Your task to perform on an android device: open app "Speedtest by Ookla" (install if not already installed) Image 0: 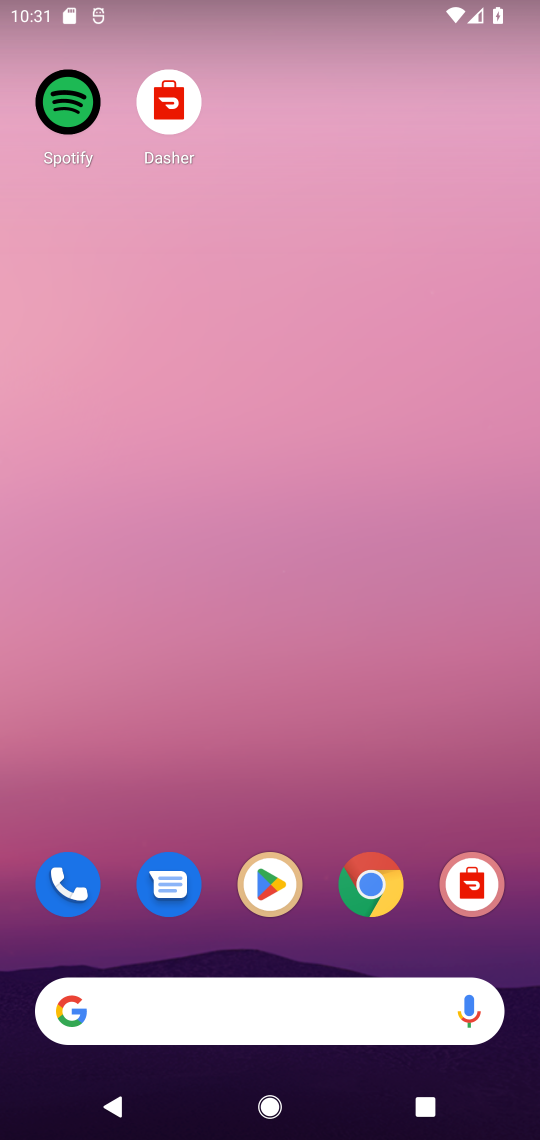
Step 0: click (272, 885)
Your task to perform on an android device: open app "Speedtest by Ookla" (install if not already installed) Image 1: 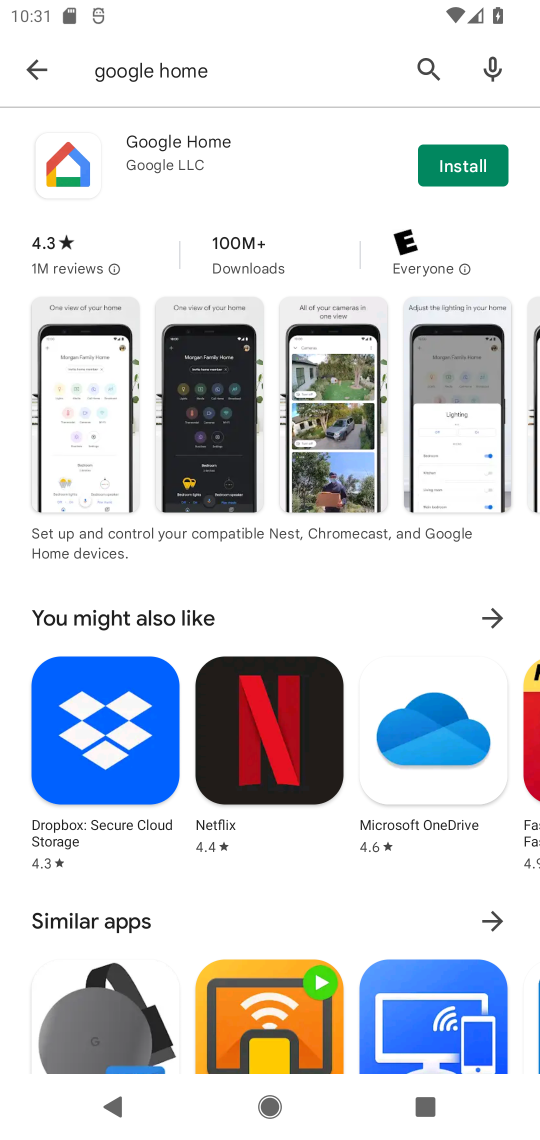
Step 1: click (426, 68)
Your task to perform on an android device: open app "Speedtest by Ookla" (install if not already installed) Image 2: 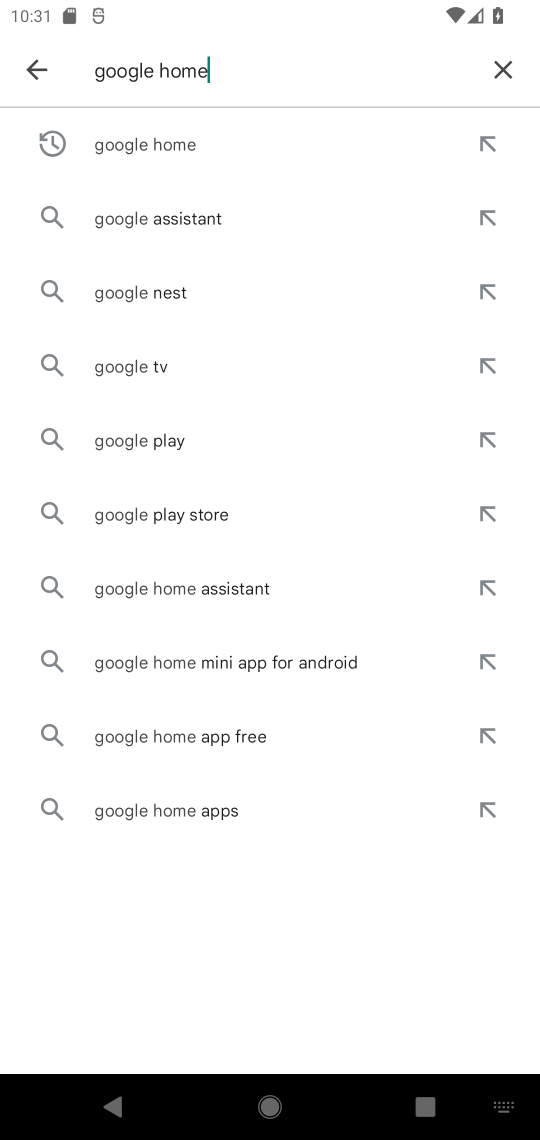
Step 2: click (499, 68)
Your task to perform on an android device: open app "Speedtest by Ookla" (install if not already installed) Image 3: 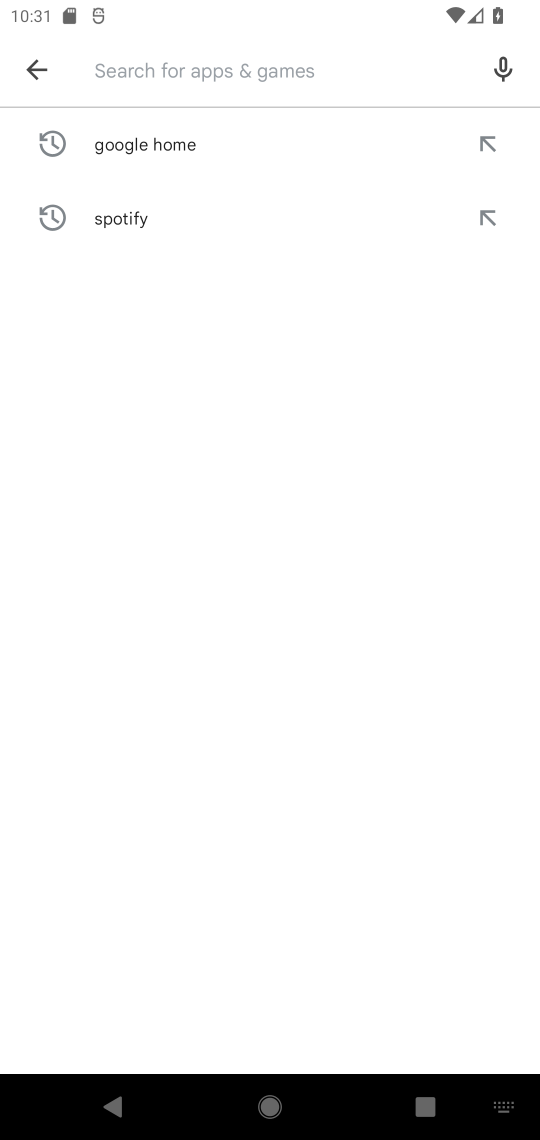
Step 3: type "Speedtest by Ookla"
Your task to perform on an android device: open app "Speedtest by Ookla" (install if not already installed) Image 4: 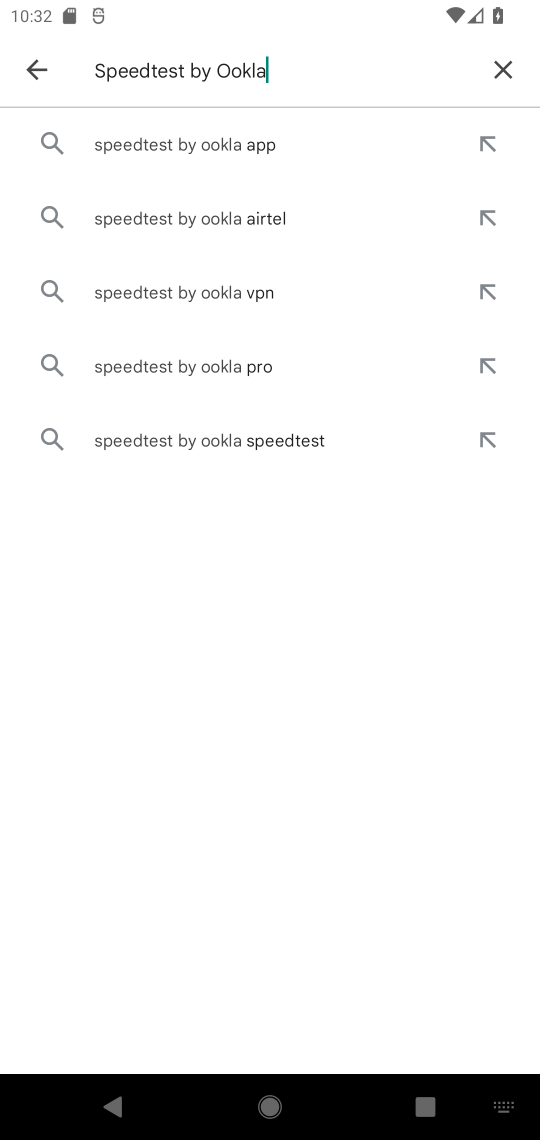
Step 4: click (208, 139)
Your task to perform on an android device: open app "Speedtest by Ookla" (install if not already installed) Image 5: 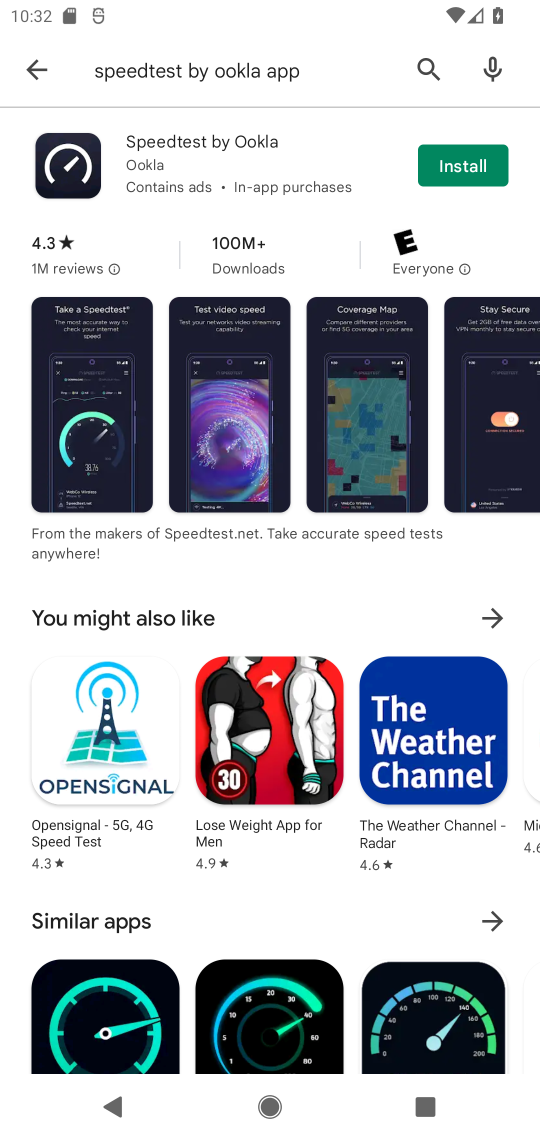
Step 5: click (460, 164)
Your task to perform on an android device: open app "Speedtest by Ookla" (install if not already installed) Image 6: 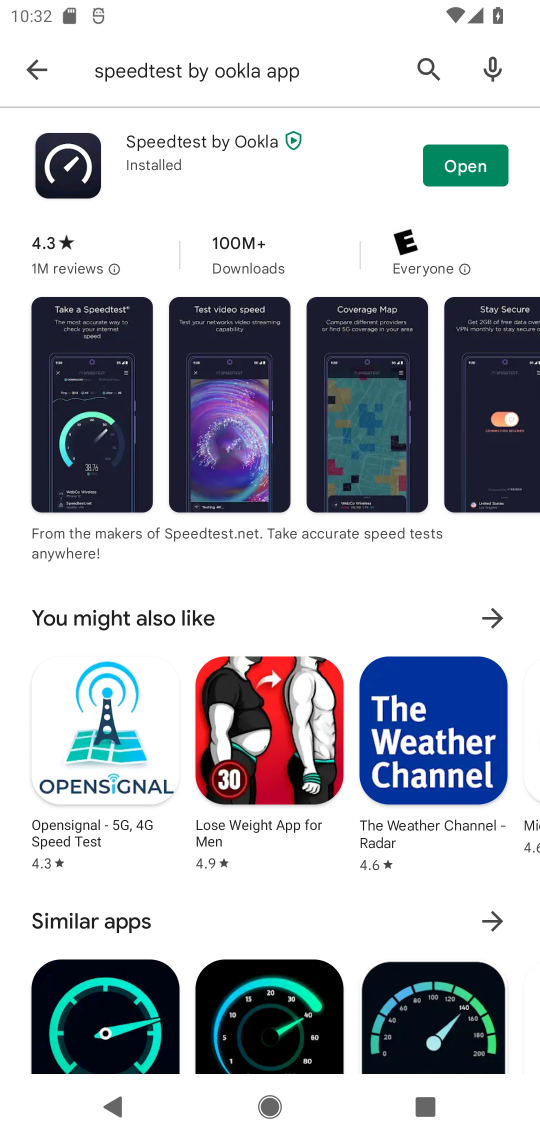
Step 6: click (465, 161)
Your task to perform on an android device: open app "Speedtest by Ookla" (install if not already installed) Image 7: 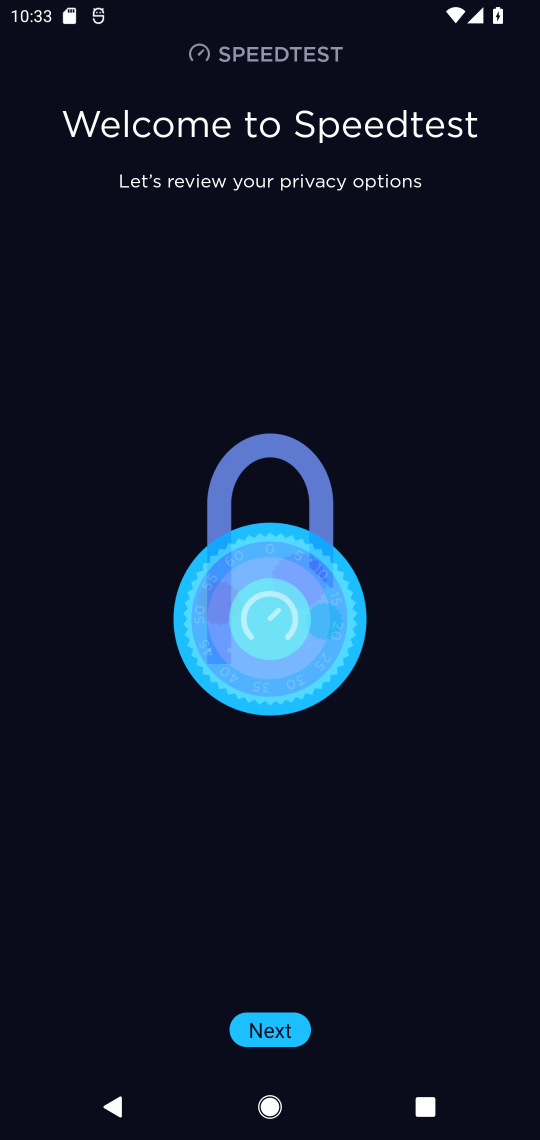
Step 7: task complete